Your task to perform on an android device: turn off priority inbox in the gmail app Image 0: 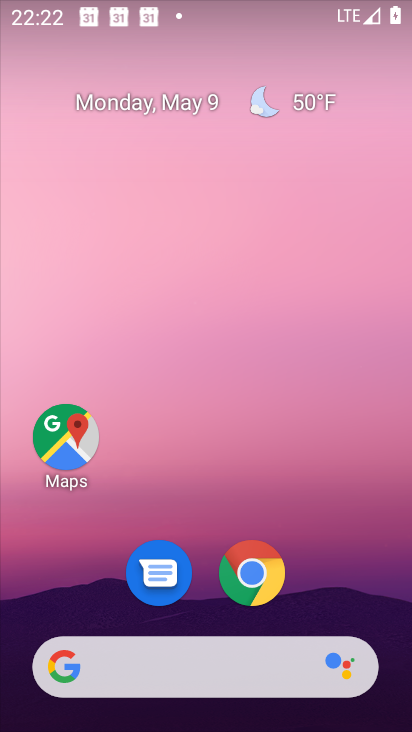
Step 0: drag from (317, 574) to (283, 4)
Your task to perform on an android device: turn off priority inbox in the gmail app Image 1: 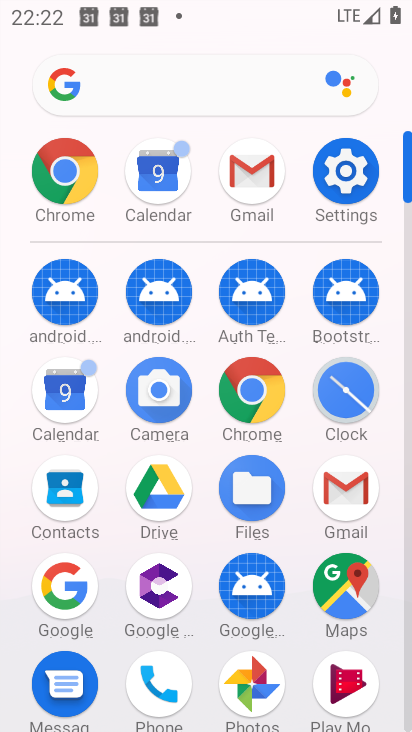
Step 1: click (250, 180)
Your task to perform on an android device: turn off priority inbox in the gmail app Image 2: 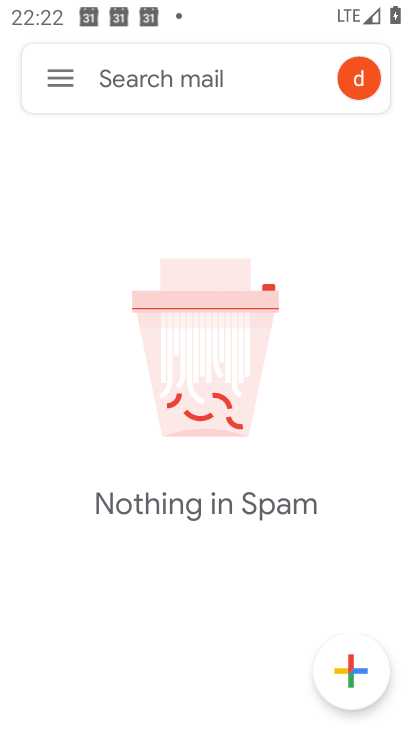
Step 2: click (68, 84)
Your task to perform on an android device: turn off priority inbox in the gmail app Image 3: 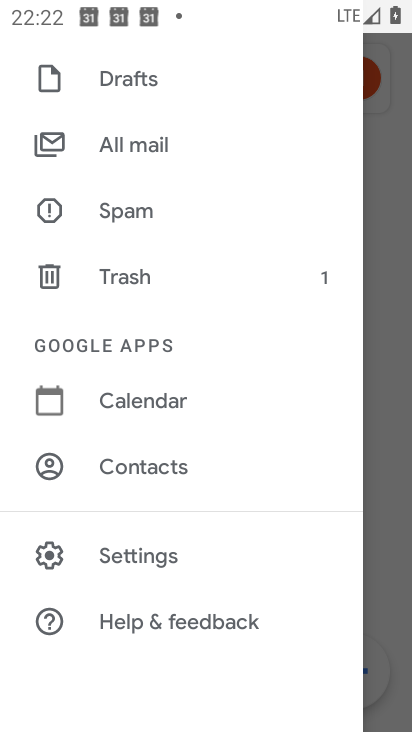
Step 3: click (189, 556)
Your task to perform on an android device: turn off priority inbox in the gmail app Image 4: 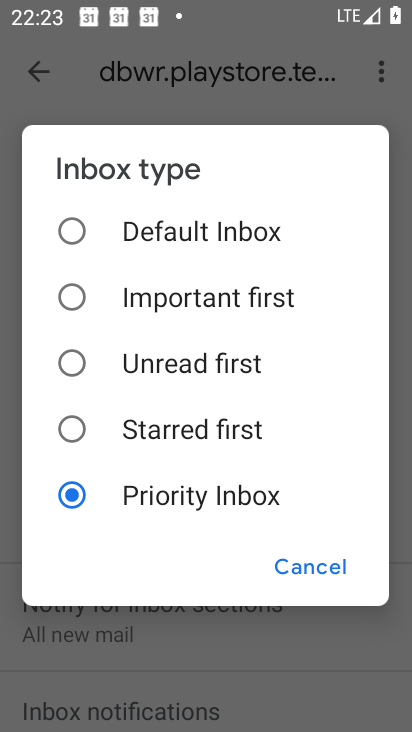
Step 4: task complete